Your task to perform on an android device: find which apps use the phone's location Image 0: 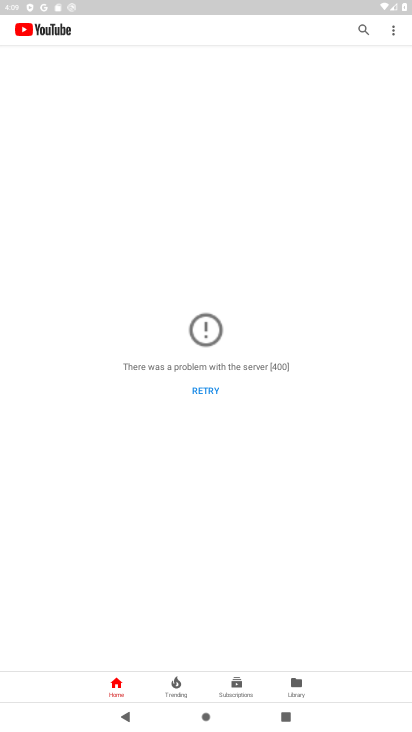
Step 0: press home button
Your task to perform on an android device: find which apps use the phone's location Image 1: 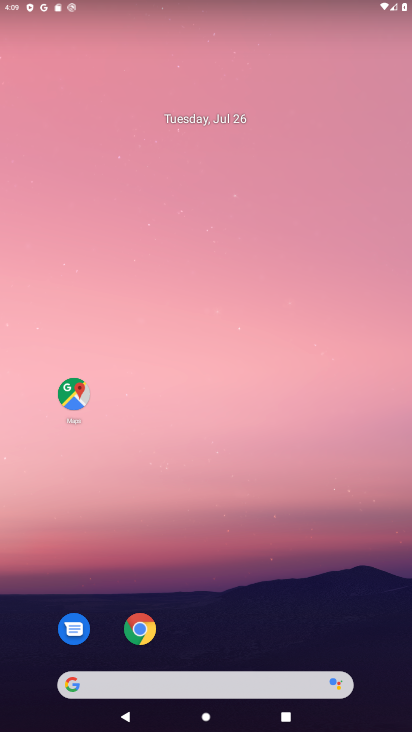
Step 1: drag from (277, 589) to (291, 50)
Your task to perform on an android device: find which apps use the phone's location Image 2: 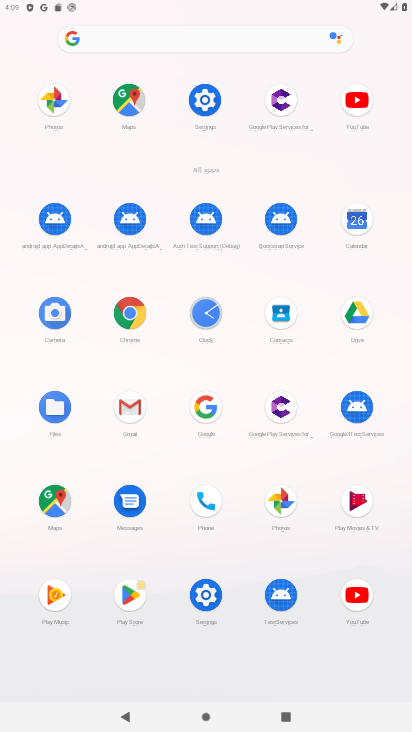
Step 2: click (209, 96)
Your task to perform on an android device: find which apps use the phone's location Image 3: 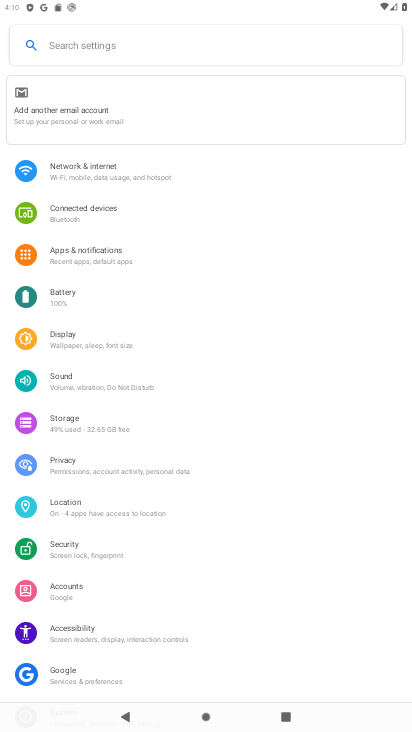
Step 3: click (131, 504)
Your task to perform on an android device: find which apps use the phone's location Image 4: 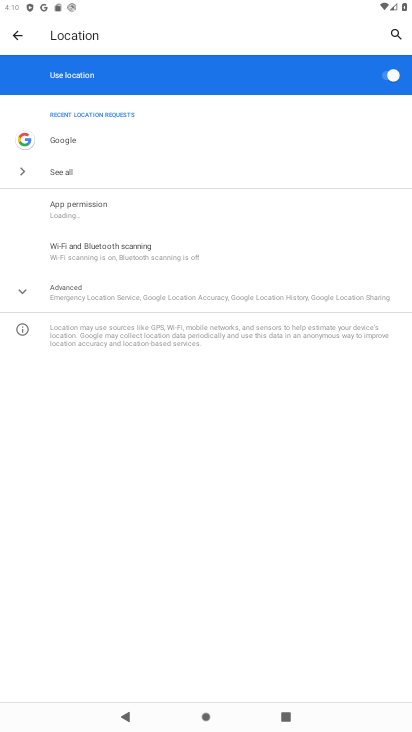
Step 4: click (265, 205)
Your task to perform on an android device: find which apps use the phone's location Image 5: 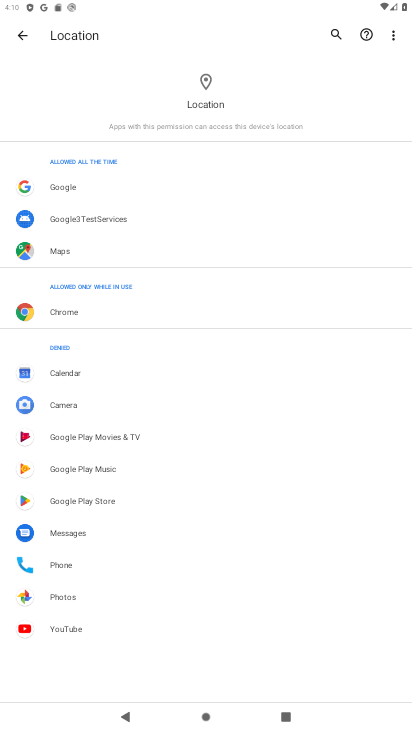
Step 5: task complete